Your task to perform on an android device: turn off wifi Image 0: 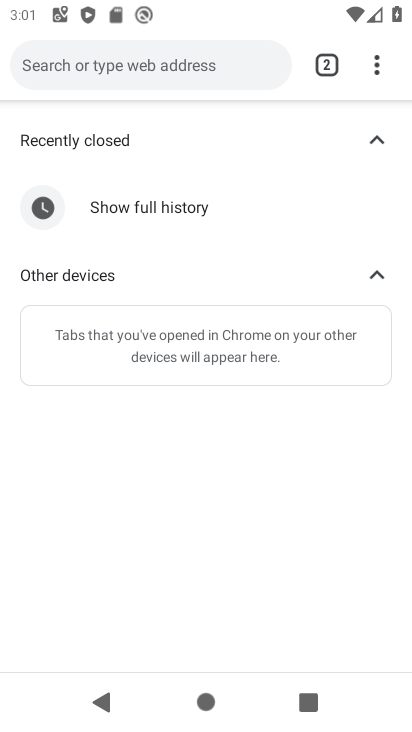
Step 0: click (388, 61)
Your task to perform on an android device: turn off wifi Image 1: 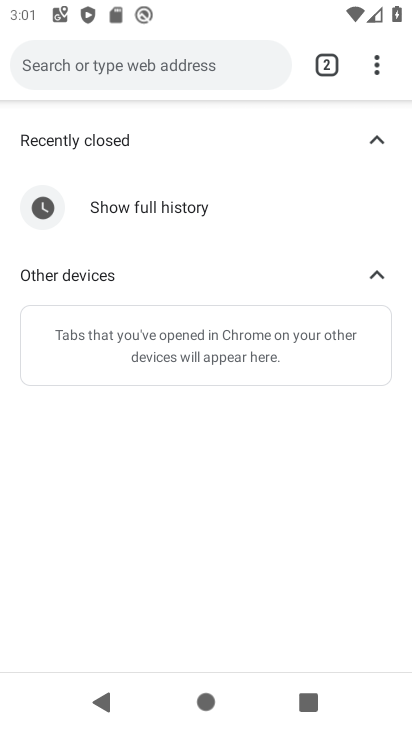
Step 1: click (363, 68)
Your task to perform on an android device: turn off wifi Image 2: 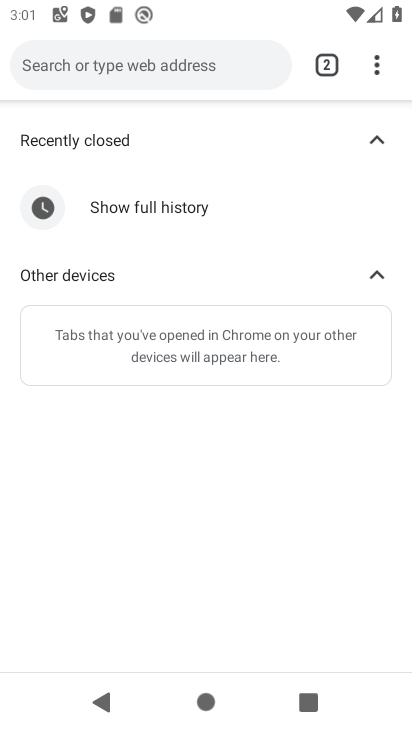
Step 2: press home button
Your task to perform on an android device: turn off wifi Image 3: 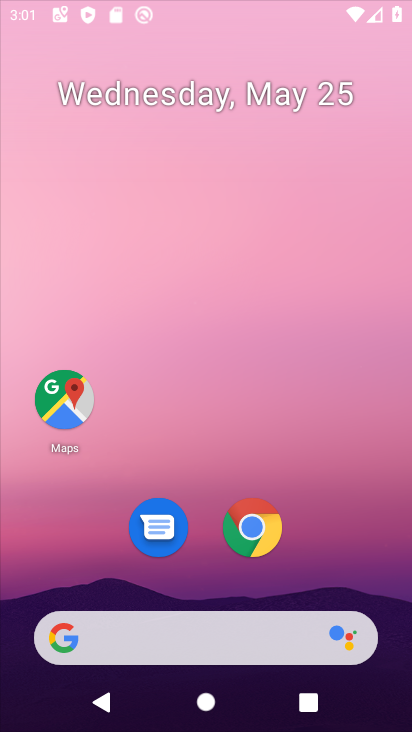
Step 3: drag from (160, 486) to (252, 72)
Your task to perform on an android device: turn off wifi Image 4: 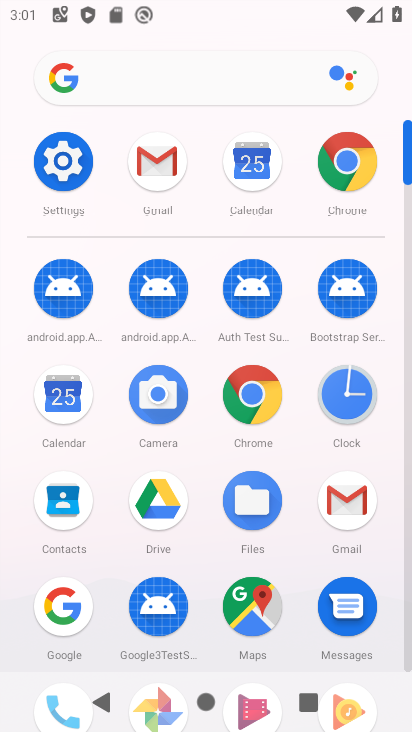
Step 4: click (68, 153)
Your task to perform on an android device: turn off wifi Image 5: 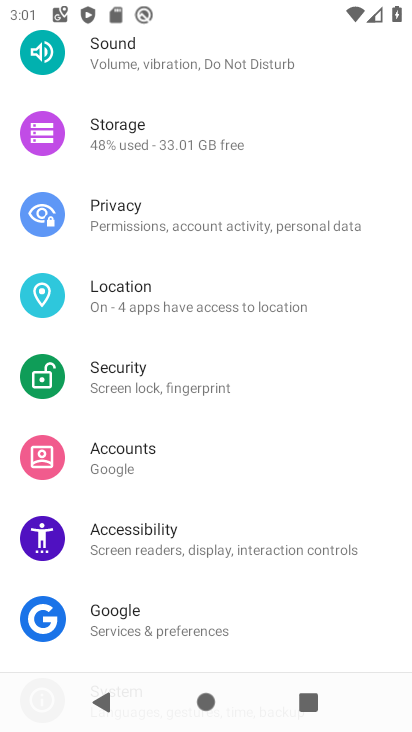
Step 5: drag from (229, 319) to (198, 689)
Your task to perform on an android device: turn off wifi Image 6: 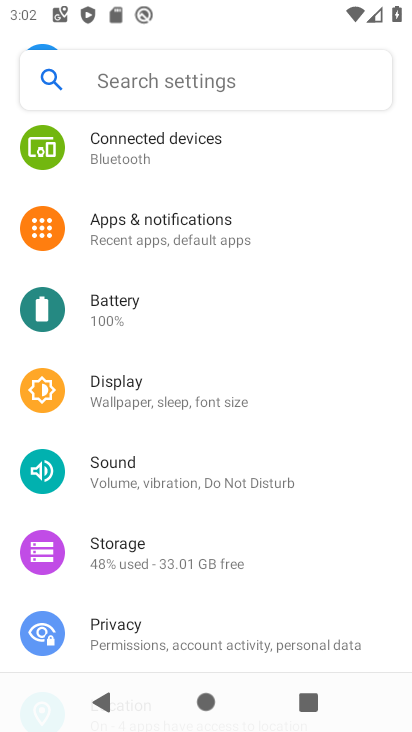
Step 6: drag from (236, 224) to (199, 615)
Your task to perform on an android device: turn off wifi Image 7: 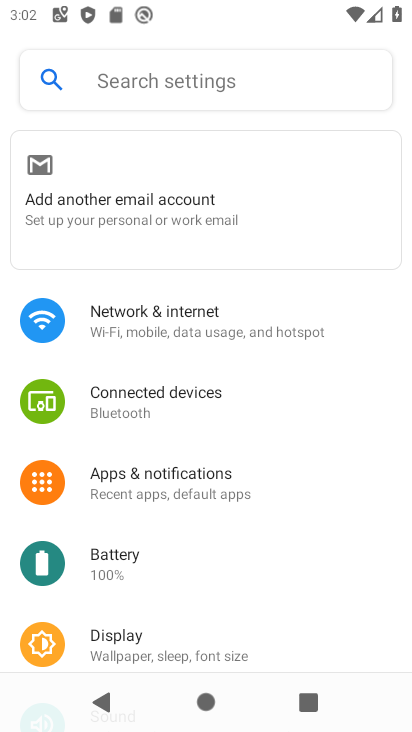
Step 7: click (157, 328)
Your task to perform on an android device: turn off wifi Image 8: 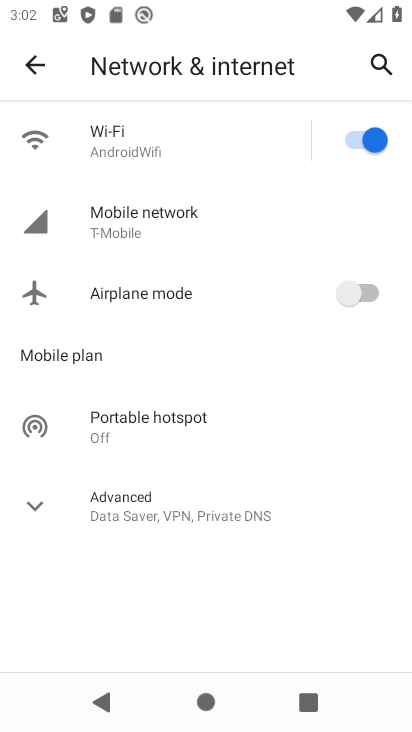
Step 8: click (370, 143)
Your task to perform on an android device: turn off wifi Image 9: 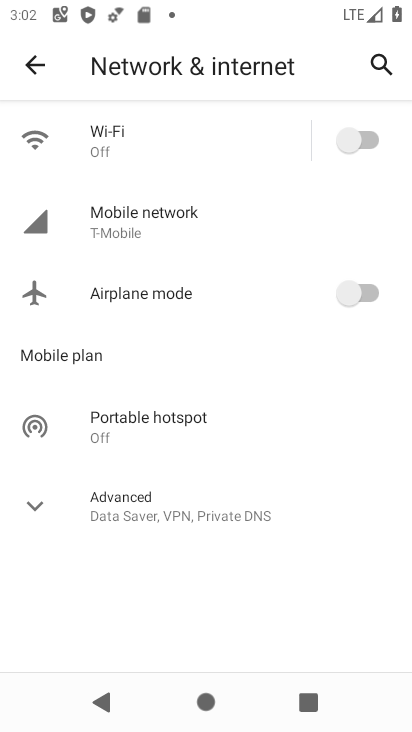
Step 9: task complete